Your task to perform on an android device: Search for the best rated mechanical keyboard on Amazon. Image 0: 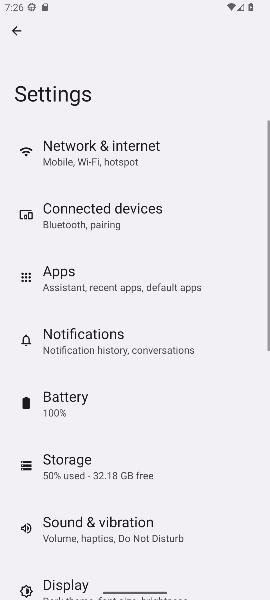
Step 0: press home button
Your task to perform on an android device: Search for the best rated mechanical keyboard on Amazon. Image 1: 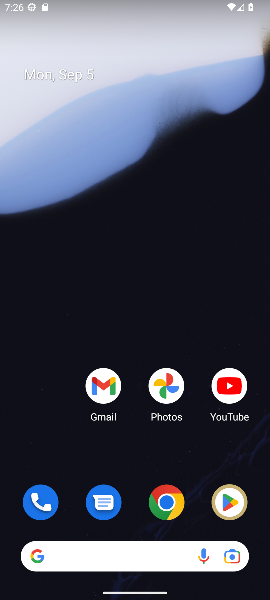
Step 1: drag from (196, 499) to (139, 30)
Your task to perform on an android device: Search for the best rated mechanical keyboard on Amazon. Image 2: 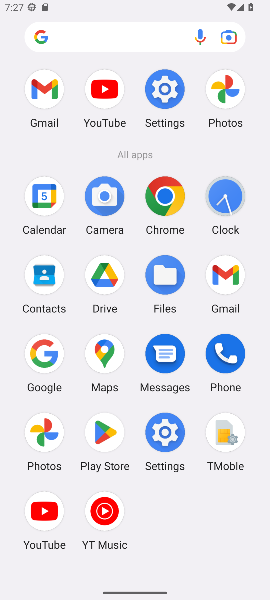
Step 2: click (46, 350)
Your task to perform on an android device: Search for the best rated mechanical keyboard on Amazon. Image 3: 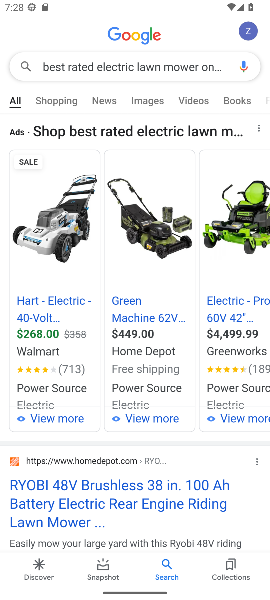
Step 3: press back button
Your task to perform on an android device: Search for the best rated mechanical keyboard on Amazon. Image 4: 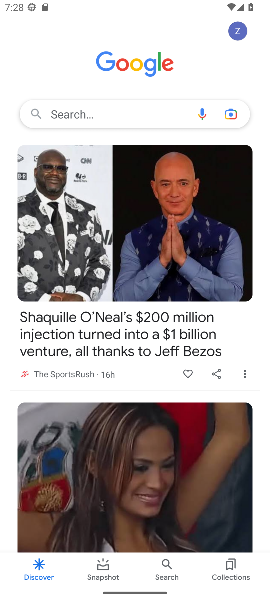
Step 4: click (73, 116)
Your task to perform on an android device: Search for the best rated mechanical keyboard on Amazon. Image 5: 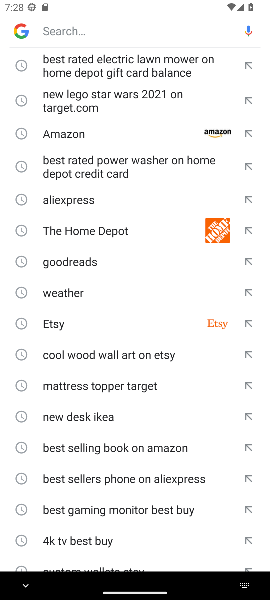
Step 5: type "best rated mechanical keyboard on Amazon"
Your task to perform on an android device: Search for the best rated mechanical keyboard on Amazon. Image 6: 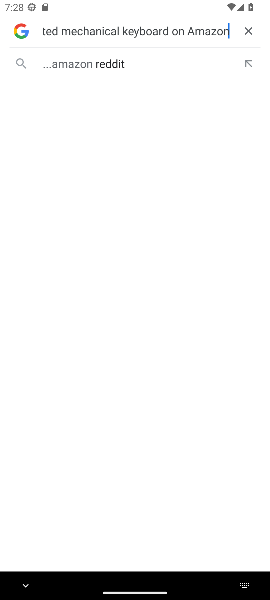
Step 6: click (90, 68)
Your task to perform on an android device: Search for the best rated mechanical keyboard on Amazon. Image 7: 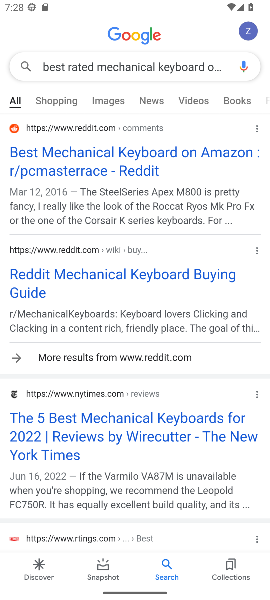
Step 7: task complete